Your task to perform on an android device: set an alarm Image 0: 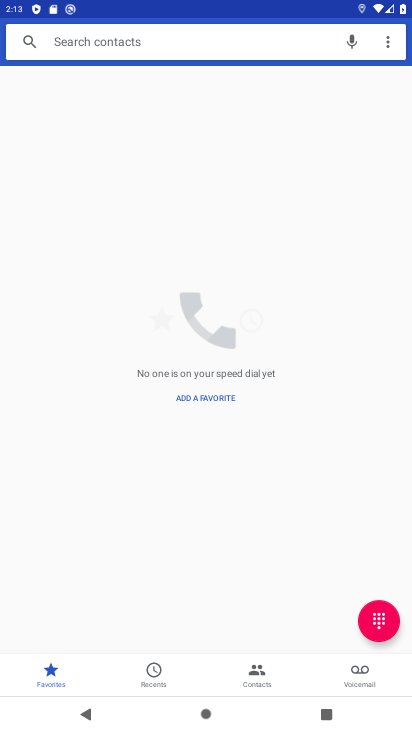
Step 0: press home button
Your task to perform on an android device: set an alarm Image 1: 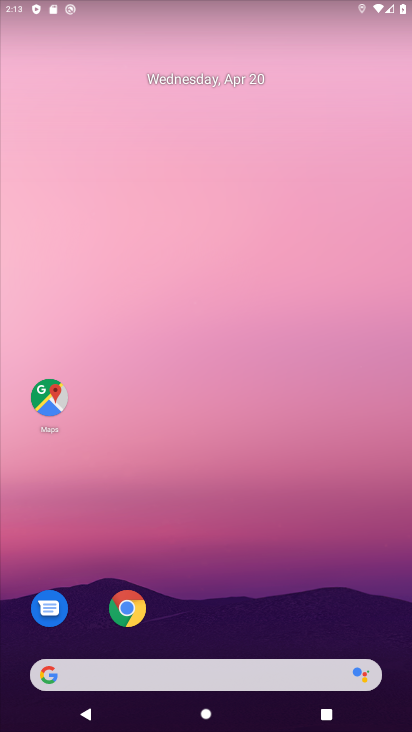
Step 1: drag from (328, 346) to (335, 151)
Your task to perform on an android device: set an alarm Image 2: 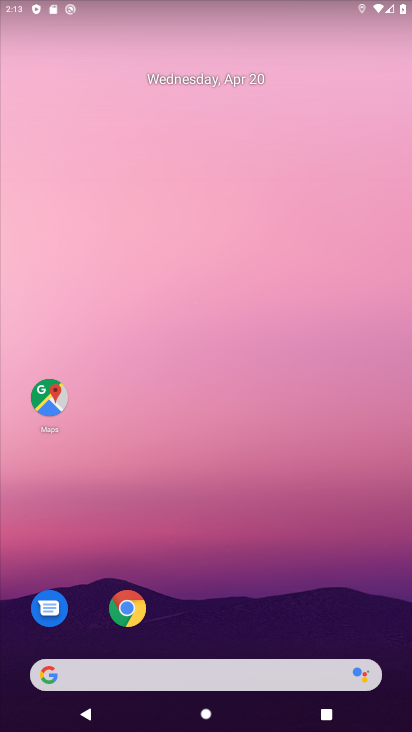
Step 2: drag from (350, 533) to (304, 187)
Your task to perform on an android device: set an alarm Image 3: 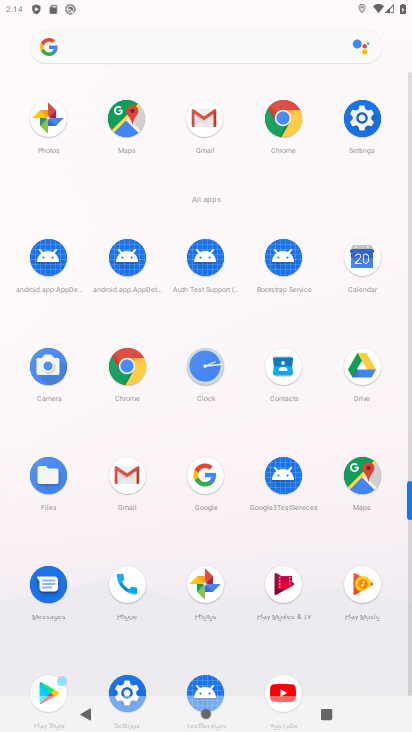
Step 3: click (198, 363)
Your task to perform on an android device: set an alarm Image 4: 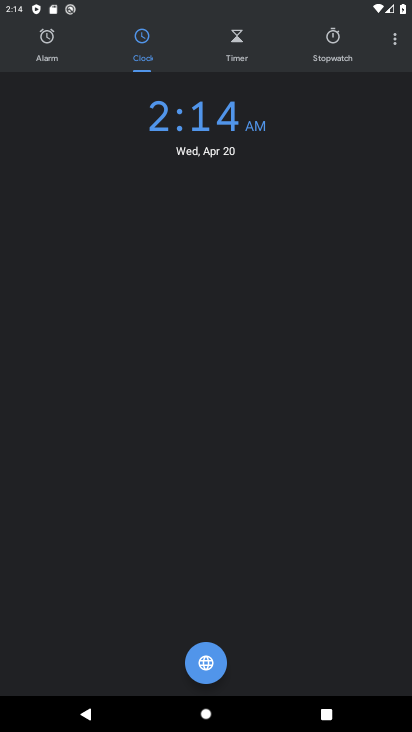
Step 4: click (50, 40)
Your task to perform on an android device: set an alarm Image 5: 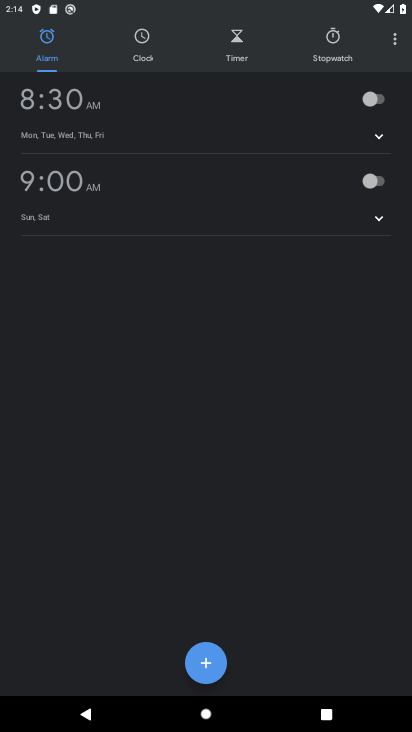
Step 5: click (203, 667)
Your task to perform on an android device: set an alarm Image 6: 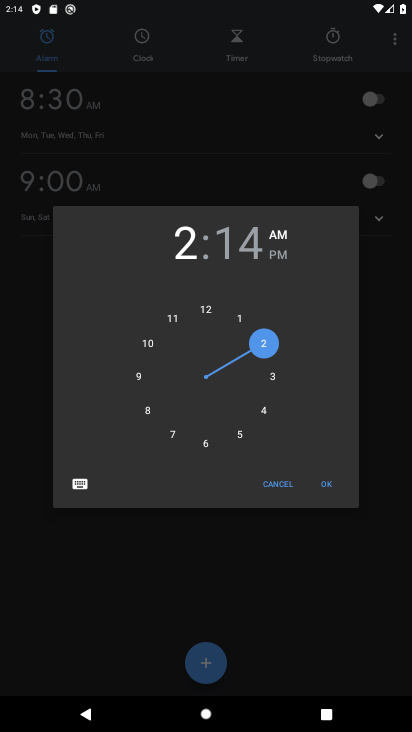
Step 6: click (324, 480)
Your task to perform on an android device: set an alarm Image 7: 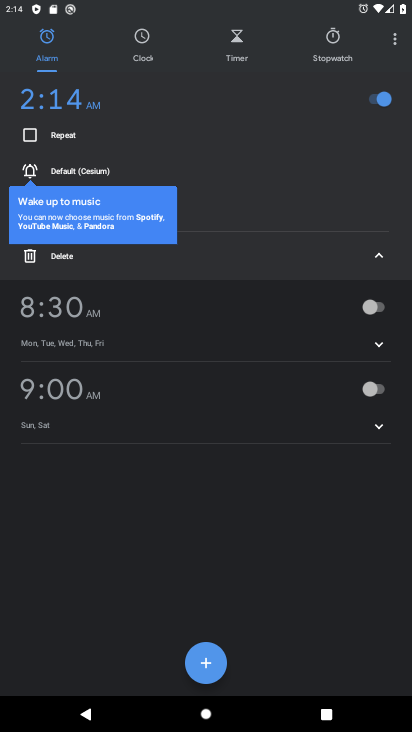
Step 7: task complete